Your task to perform on an android device: allow cookies in the chrome app Image 0: 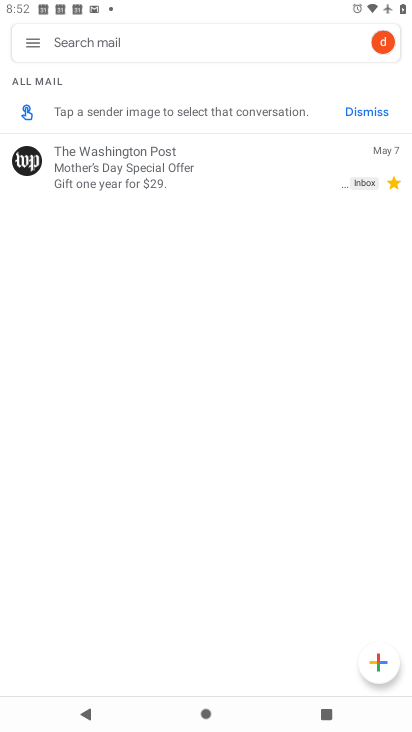
Step 0: press home button
Your task to perform on an android device: allow cookies in the chrome app Image 1: 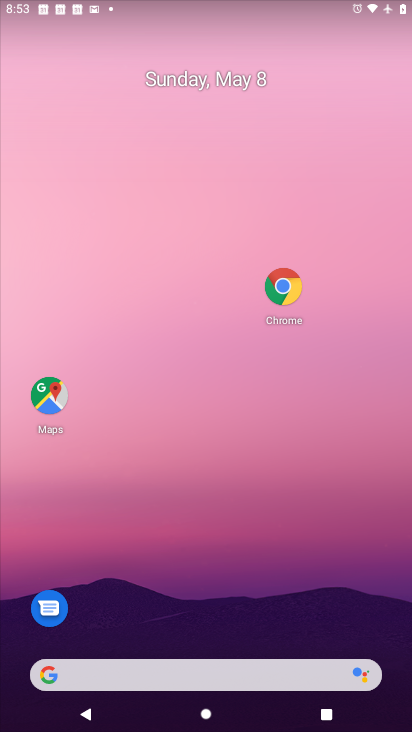
Step 1: drag from (176, 664) to (293, 216)
Your task to perform on an android device: allow cookies in the chrome app Image 2: 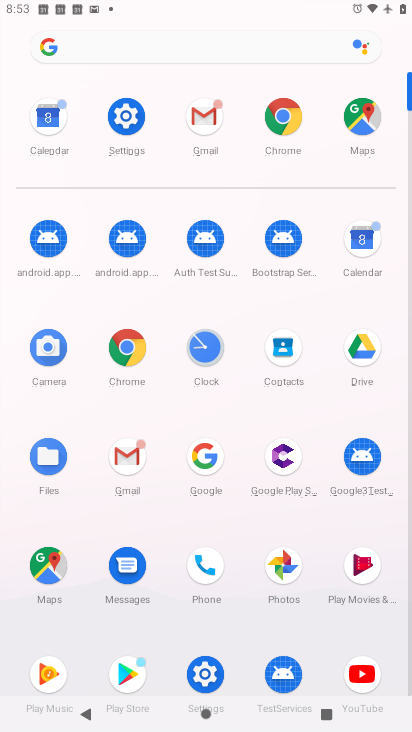
Step 2: click (286, 121)
Your task to perform on an android device: allow cookies in the chrome app Image 3: 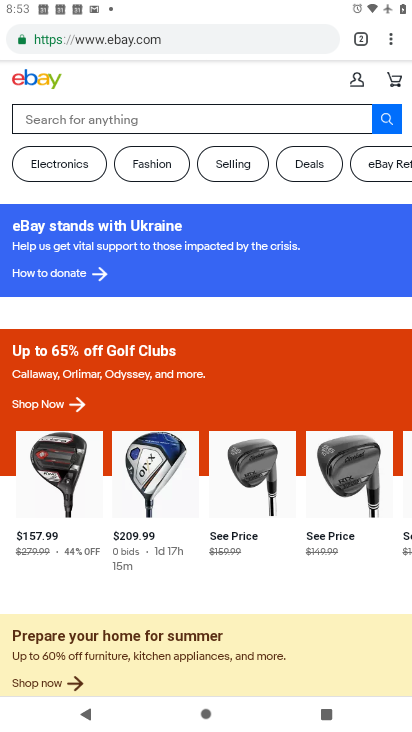
Step 3: drag from (390, 43) to (257, 469)
Your task to perform on an android device: allow cookies in the chrome app Image 4: 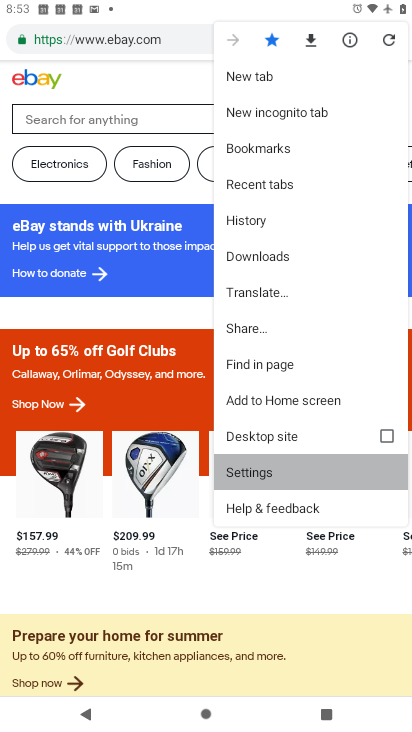
Step 4: click (257, 469)
Your task to perform on an android device: allow cookies in the chrome app Image 5: 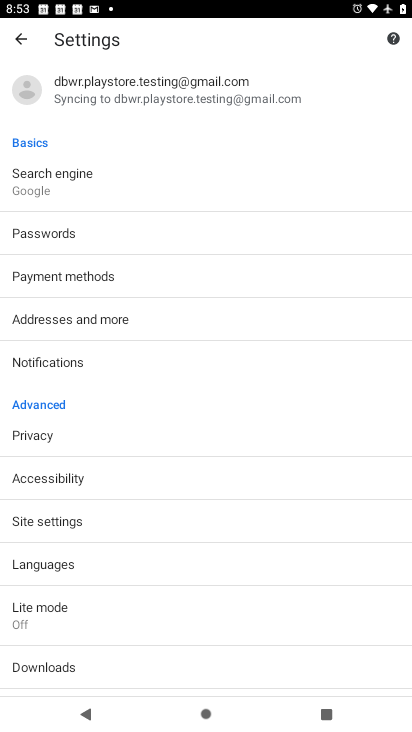
Step 5: click (69, 523)
Your task to perform on an android device: allow cookies in the chrome app Image 6: 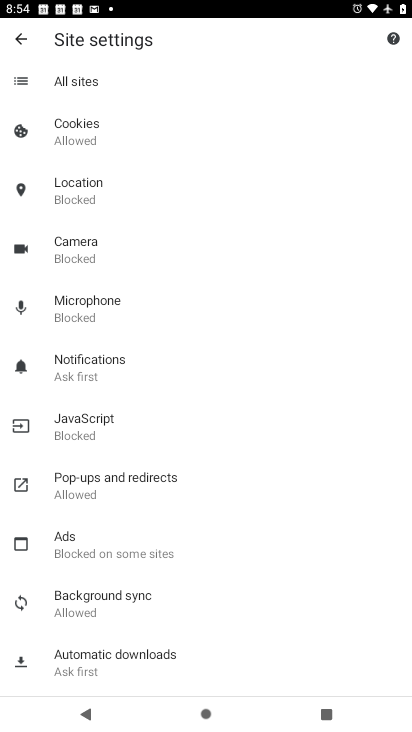
Step 6: click (109, 128)
Your task to perform on an android device: allow cookies in the chrome app Image 7: 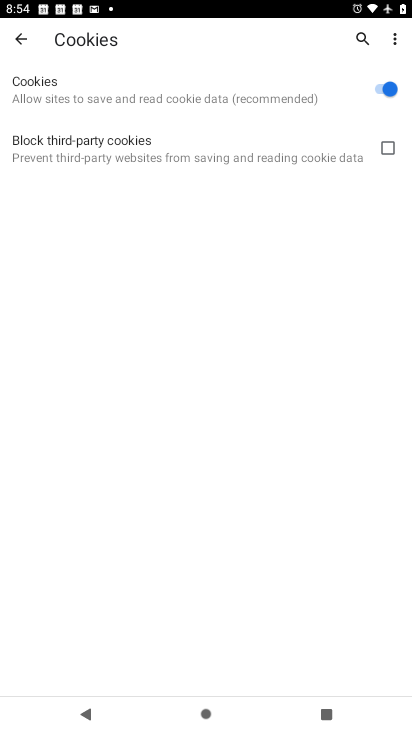
Step 7: task complete